Your task to perform on an android device: turn off location Image 0: 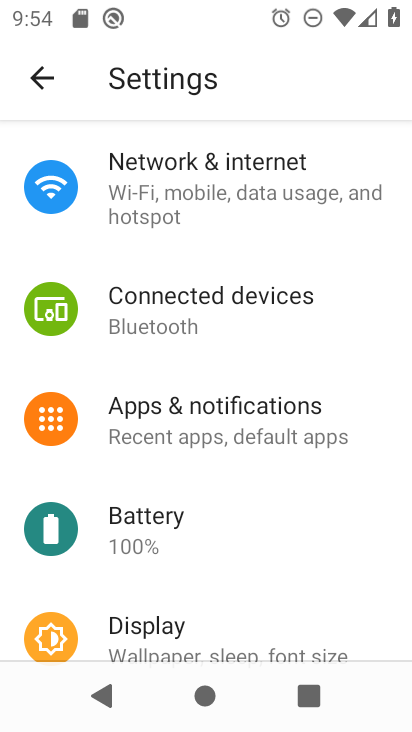
Step 0: drag from (273, 608) to (280, 190)
Your task to perform on an android device: turn off location Image 1: 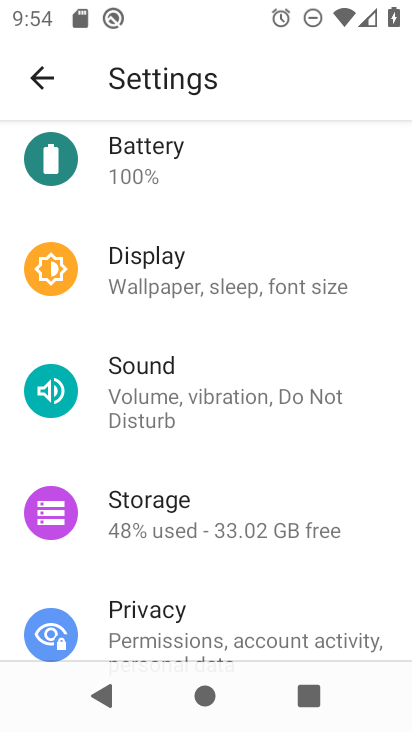
Step 1: drag from (280, 495) to (287, 130)
Your task to perform on an android device: turn off location Image 2: 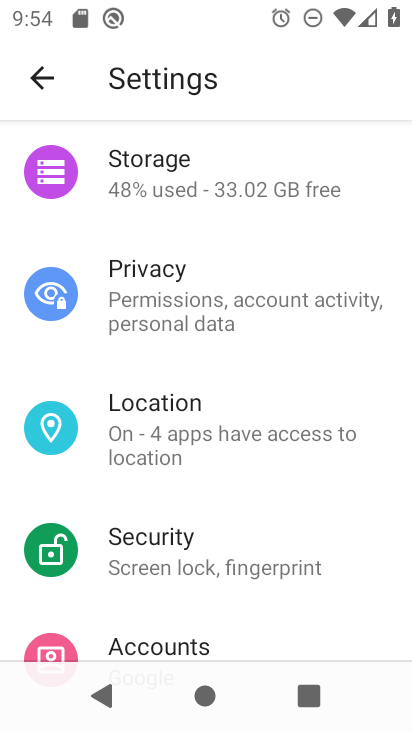
Step 2: click (151, 436)
Your task to perform on an android device: turn off location Image 3: 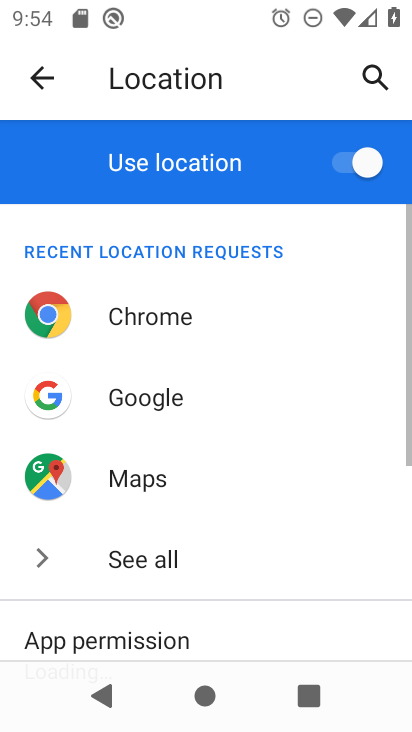
Step 3: click (367, 170)
Your task to perform on an android device: turn off location Image 4: 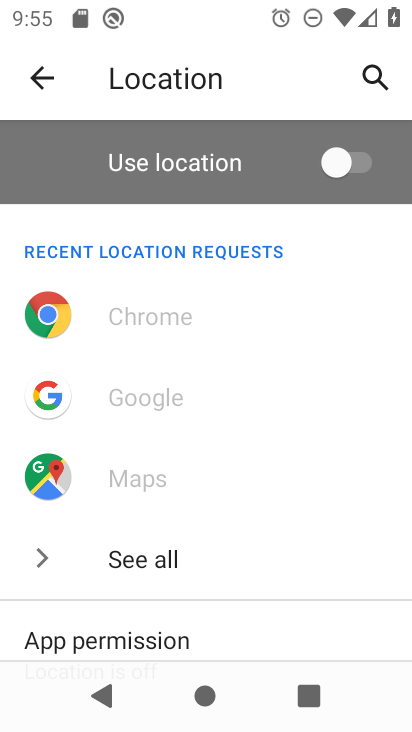
Step 4: task complete